Your task to perform on an android device: When is my next appointment? Image 0: 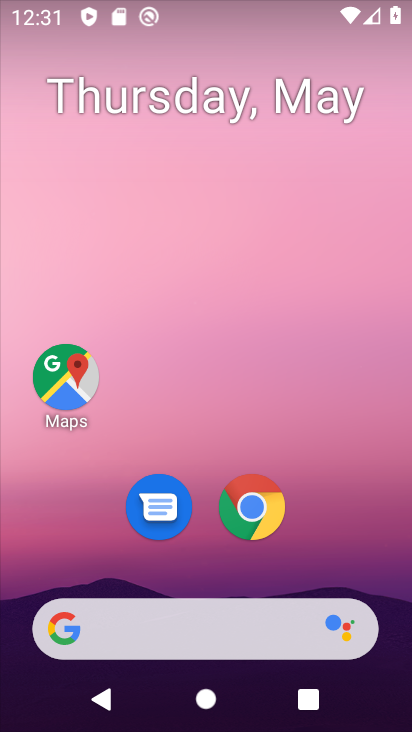
Step 0: drag from (292, 574) to (244, 243)
Your task to perform on an android device: When is my next appointment? Image 1: 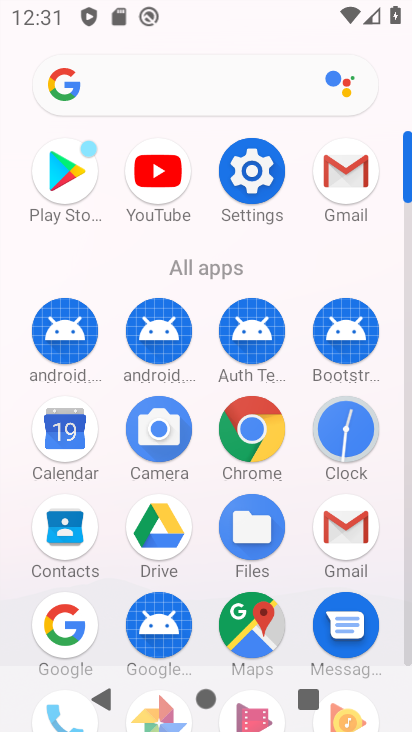
Step 1: click (64, 436)
Your task to perform on an android device: When is my next appointment? Image 2: 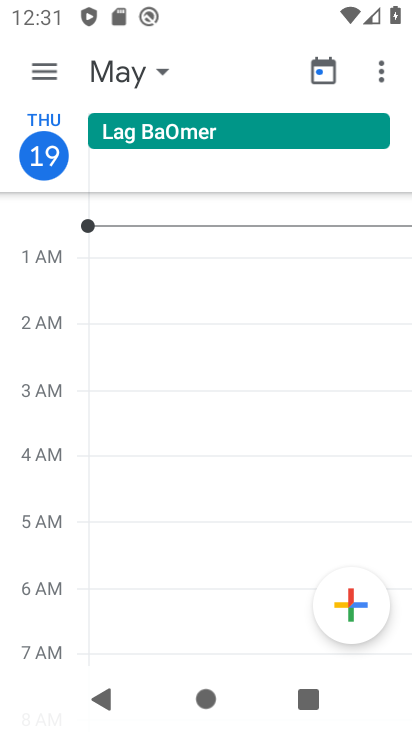
Step 2: click (39, 80)
Your task to perform on an android device: When is my next appointment? Image 3: 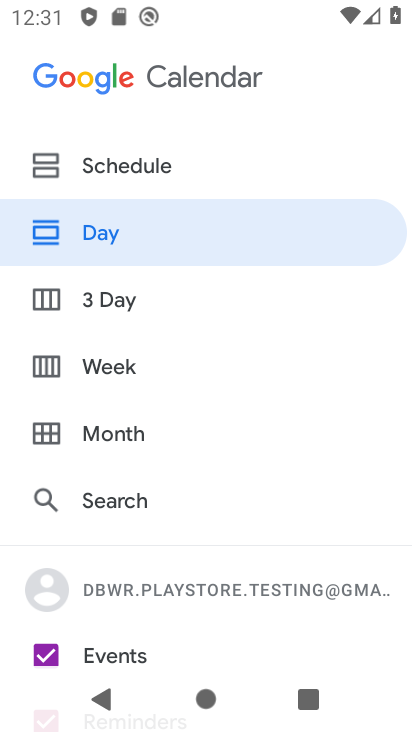
Step 3: click (119, 177)
Your task to perform on an android device: When is my next appointment? Image 4: 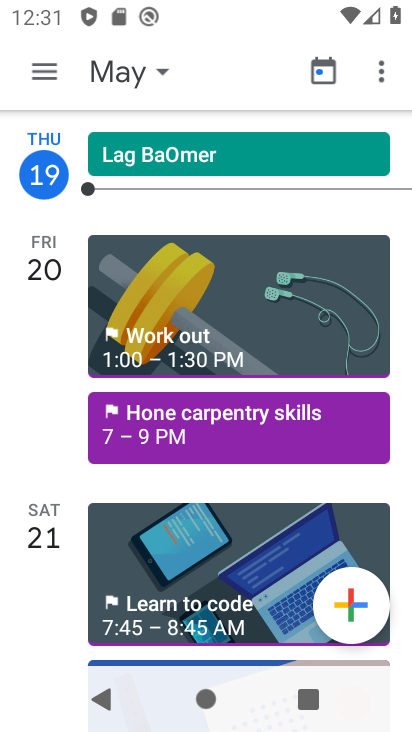
Step 4: drag from (188, 550) to (201, 164)
Your task to perform on an android device: When is my next appointment? Image 5: 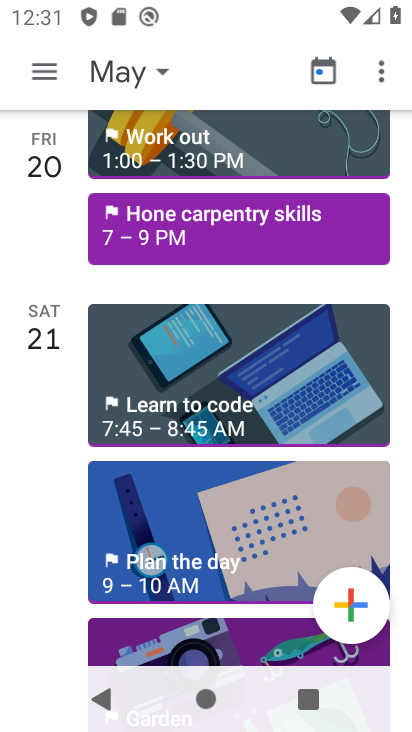
Step 5: drag from (212, 582) to (238, 82)
Your task to perform on an android device: When is my next appointment? Image 6: 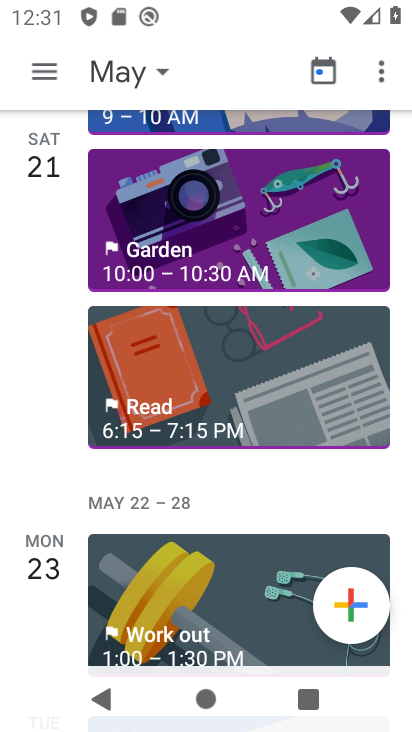
Step 6: drag from (158, 632) to (216, 205)
Your task to perform on an android device: When is my next appointment? Image 7: 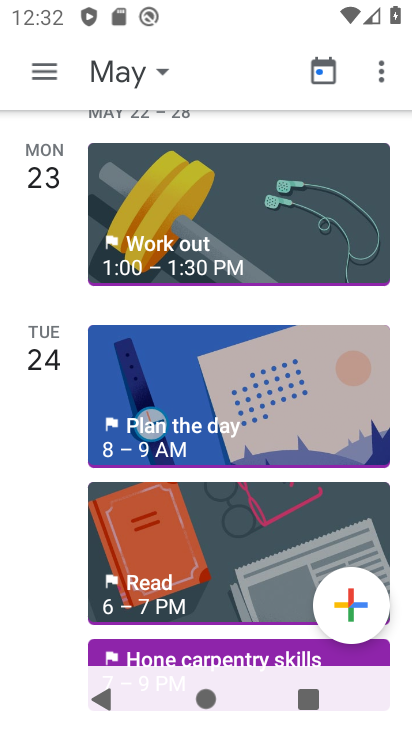
Step 7: drag from (160, 632) to (279, 154)
Your task to perform on an android device: When is my next appointment? Image 8: 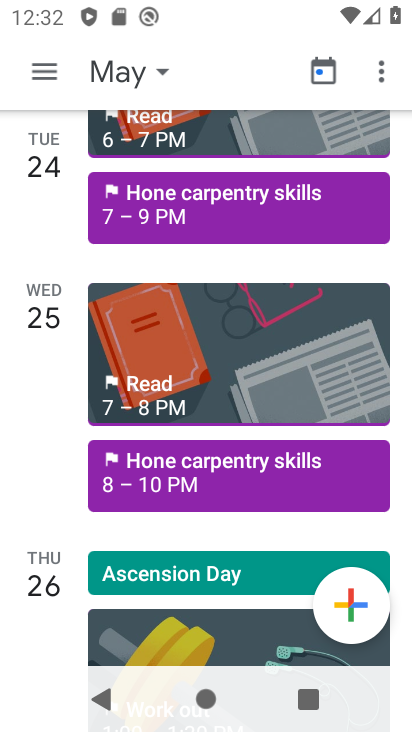
Step 8: drag from (191, 482) to (222, 131)
Your task to perform on an android device: When is my next appointment? Image 9: 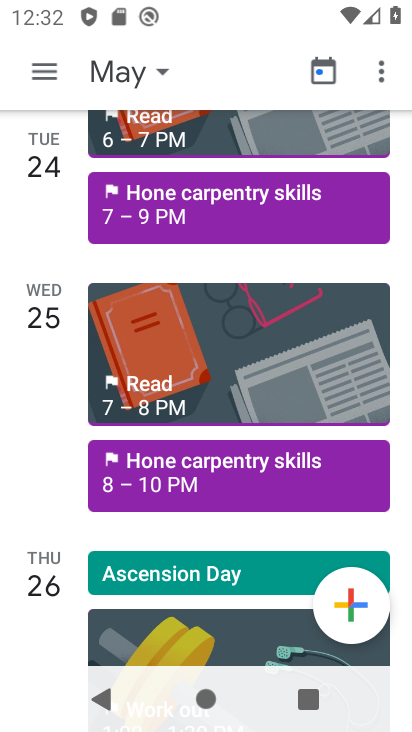
Step 9: drag from (191, 535) to (297, 25)
Your task to perform on an android device: When is my next appointment? Image 10: 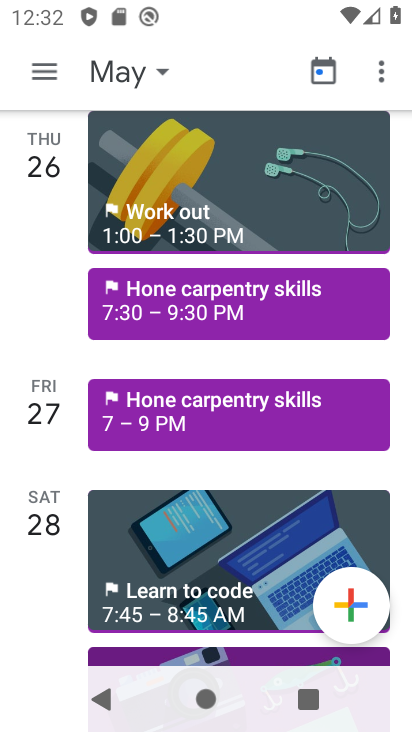
Step 10: drag from (163, 625) to (219, 161)
Your task to perform on an android device: When is my next appointment? Image 11: 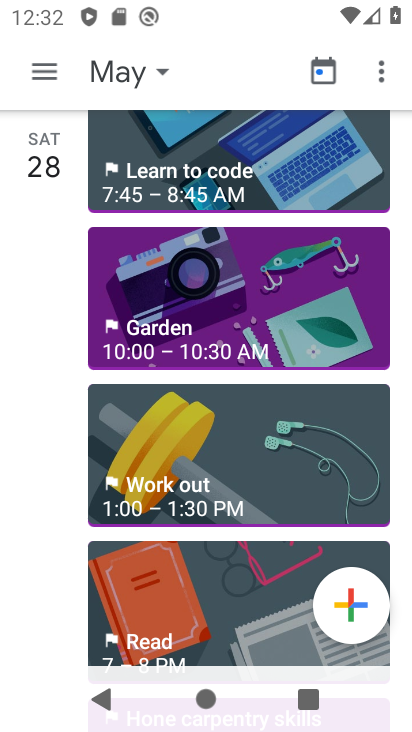
Step 11: drag from (140, 649) to (206, 183)
Your task to perform on an android device: When is my next appointment? Image 12: 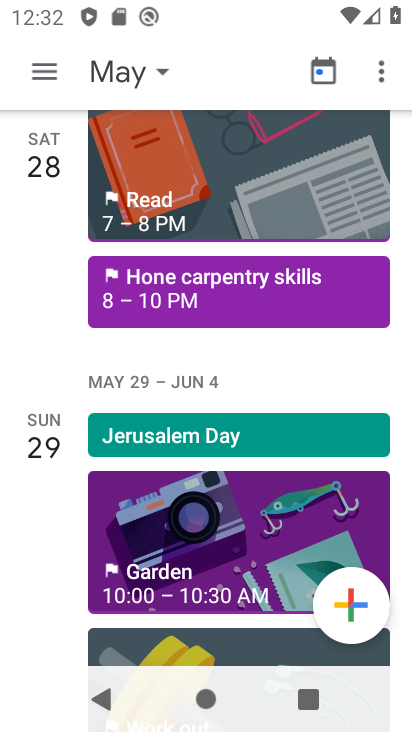
Step 12: drag from (143, 610) to (177, 117)
Your task to perform on an android device: When is my next appointment? Image 13: 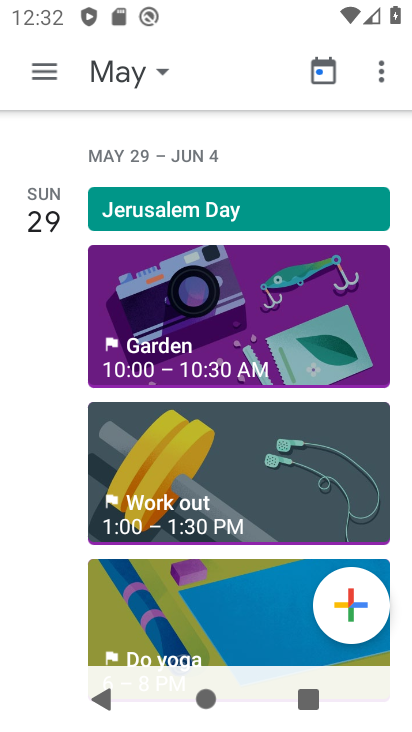
Step 13: drag from (178, 601) to (180, 67)
Your task to perform on an android device: When is my next appointment? Image 14: 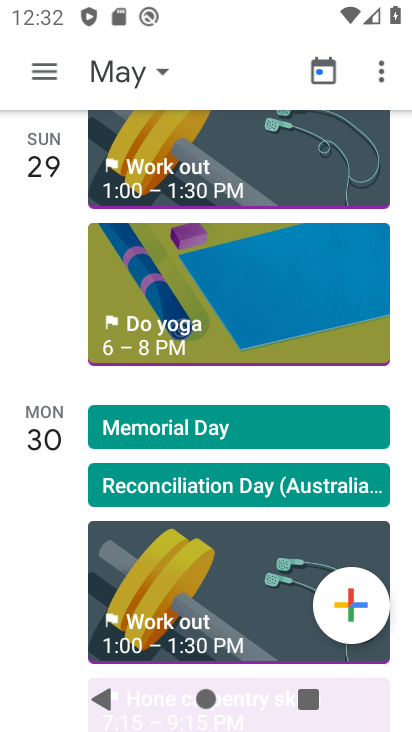
Step 14: drag from (155, 492) to (171, 84)
Your task to perform on an android device: When is my next appointment? Image 15: 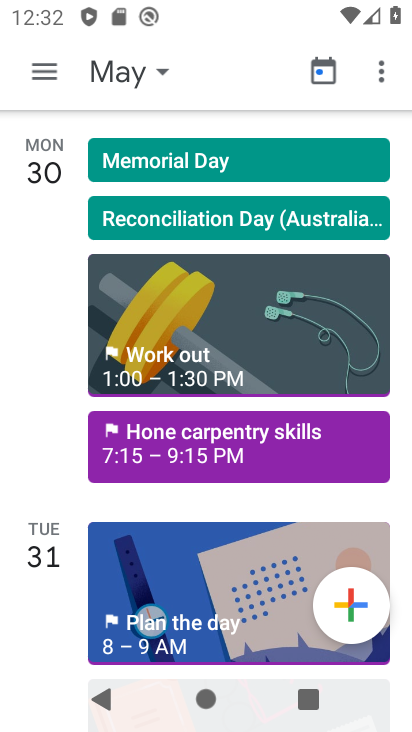
Step 15: click (193, 89)
Your task to perform on an android device: When is my next appointment? Image 16: 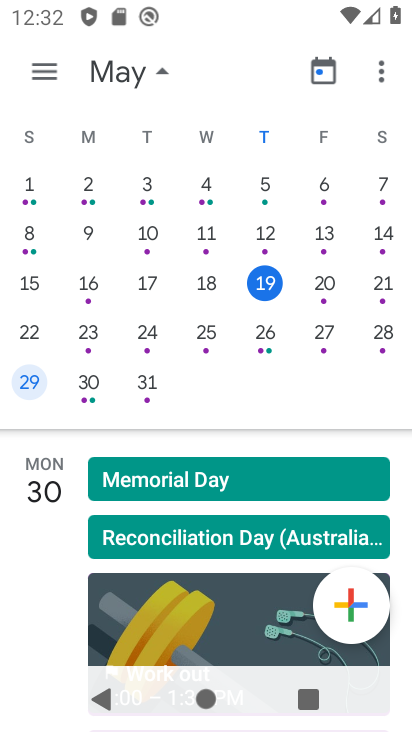
Step 16: drag from (172, 514) to (163, 127)
Your task to perform on an android device: When is my next appointment? Image 17: 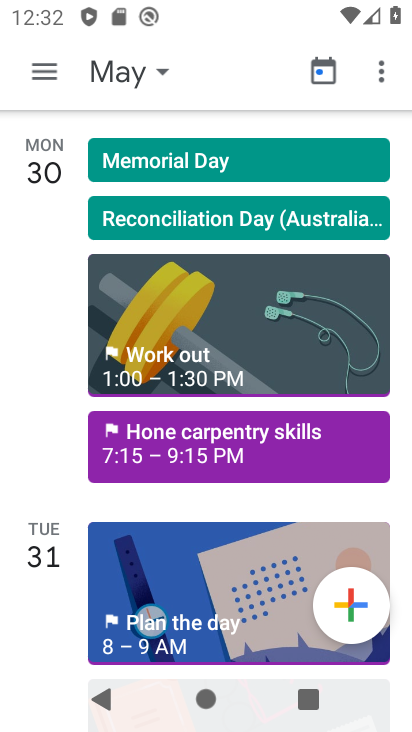
Step 17: drag from (153, 546) to (199, 139)
Your task to perform on an android device: When is my next appointment? Image 18: 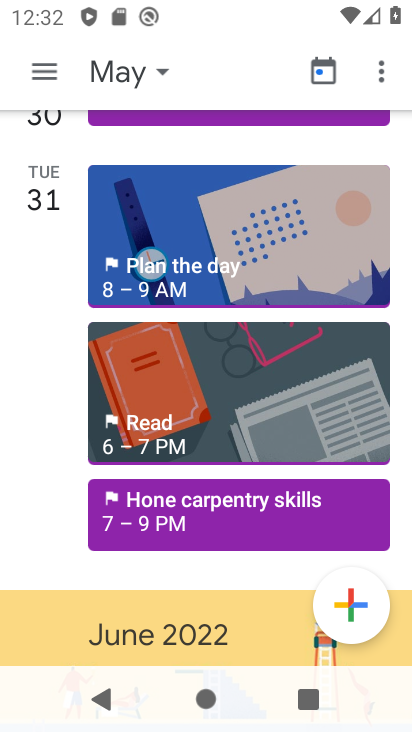
Step 18: drag from (158, 532) to (205, 139)
Your task to perform on an android device: When is my next appointment? Image 19: 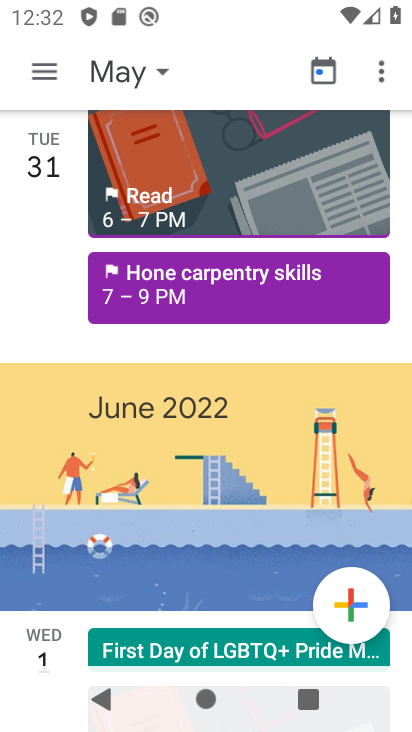
Step 19: click (225, 161)
Your task to perform on an android device: When is my next appointment? Image 20: 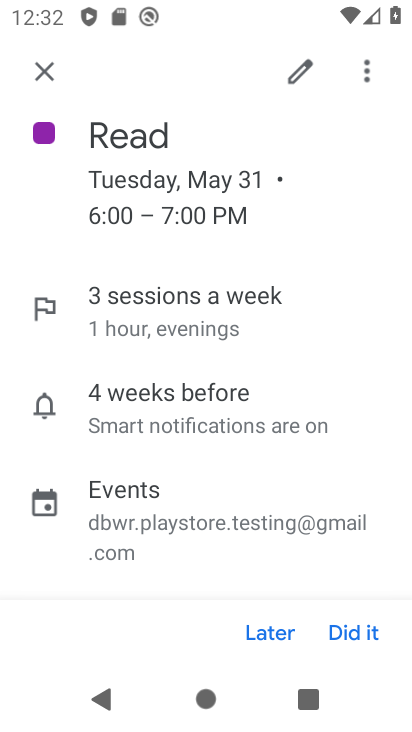
Step 20: click (38, 67)
Your task to perform on an android device: When is my next appointment? Image 21: 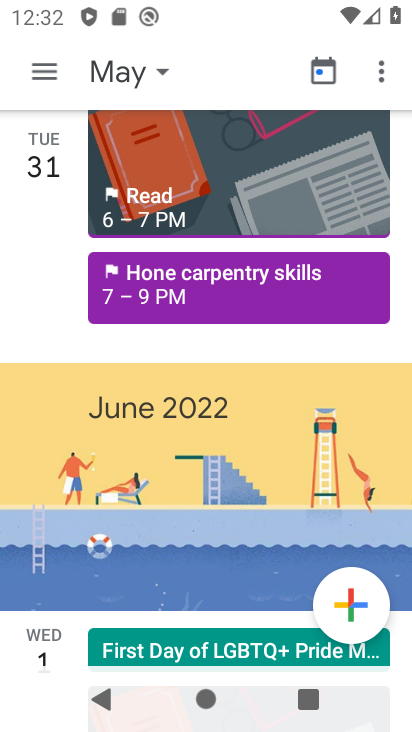
Step 21: task complete